Your task to perform on an android device: check battery use Image 0: 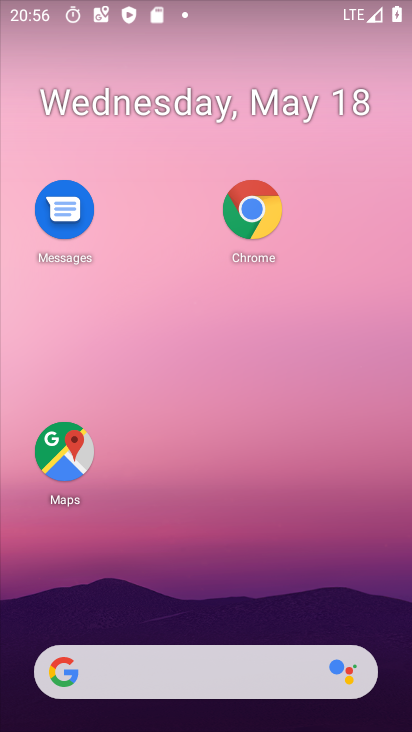
Step 0: drag from (211, 15) to (308, 337)
Your task to perform on an android device: check battery use Image 1: 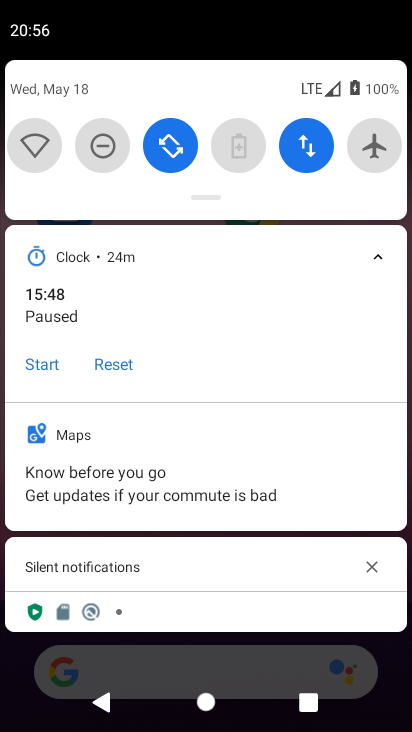
Step 1: drag from (233, 85) to (301, 638)
Your task to perform on an android device: check battery use Image 2: 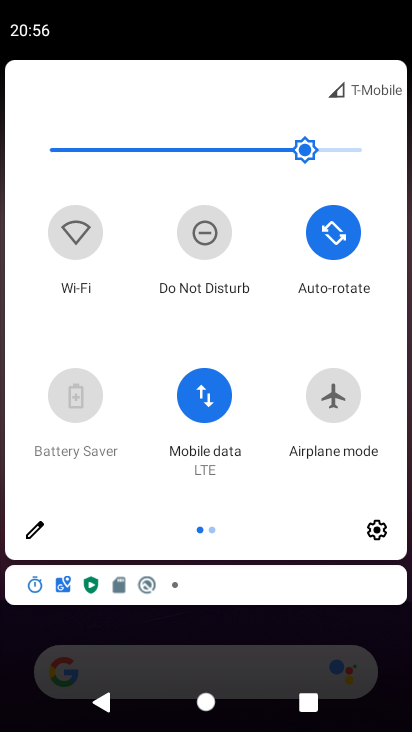
Step 2: click (377, 534)
Your task to perform on an android device: check battery use Image 3: 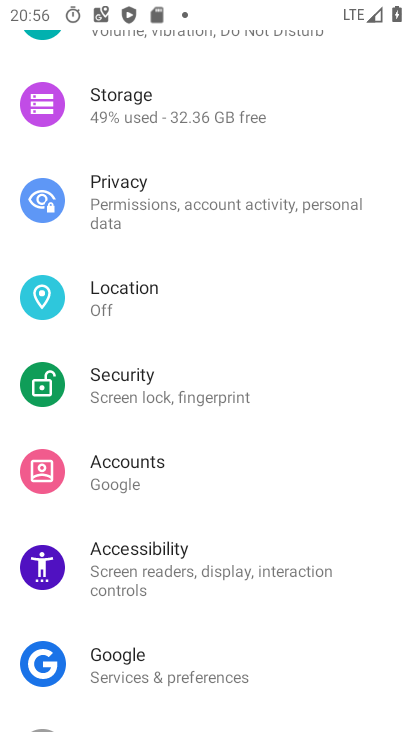
Step 3: drag from (171, 146) to (197, 519)
Your task to perform on an android device: check battery use Image 4: 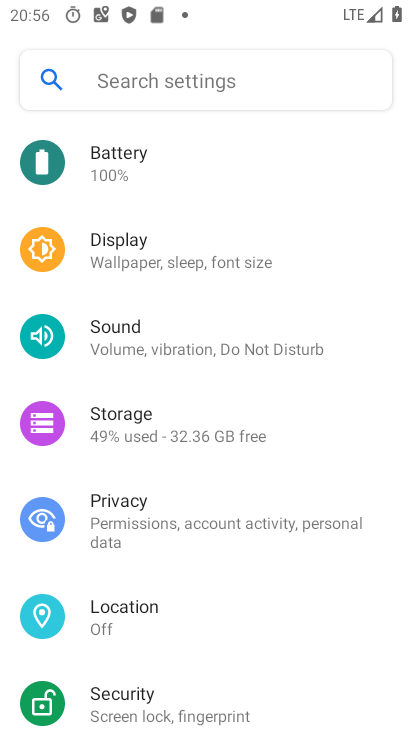
Step 4: click (120, 171)
Your task to perform on an android device: check battery use Image 5: 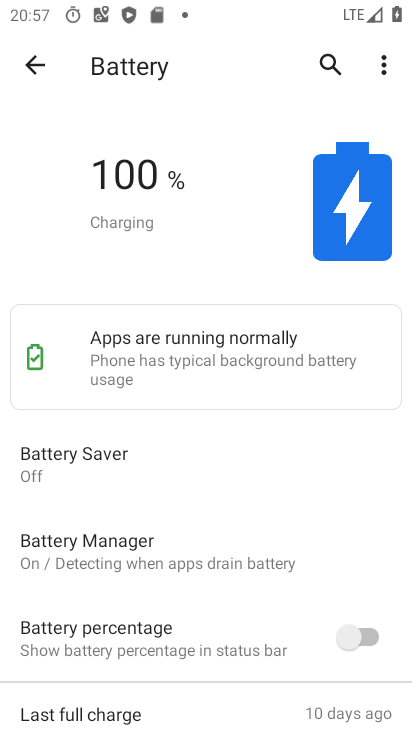
Step 5: click (386, 67)
Your task to perform on an android device: check battery use Image 6: 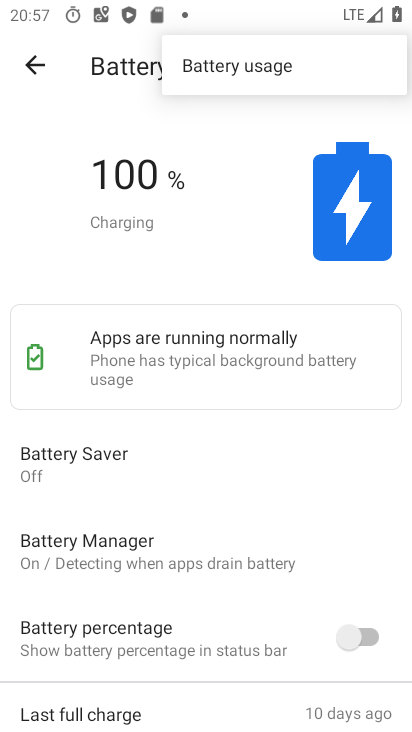
Step 6: click (386, 67)
Your task to perform on an android device: check battery use Image 7: 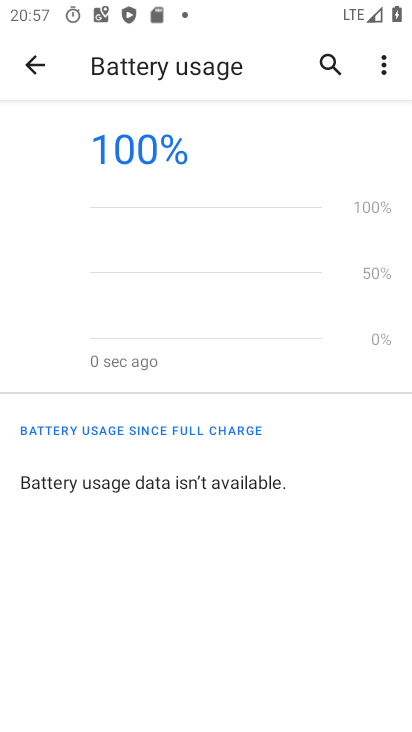
Step 7: task complete